Your task to perform on an android device: see sites visited before in the chrome app Image 0: 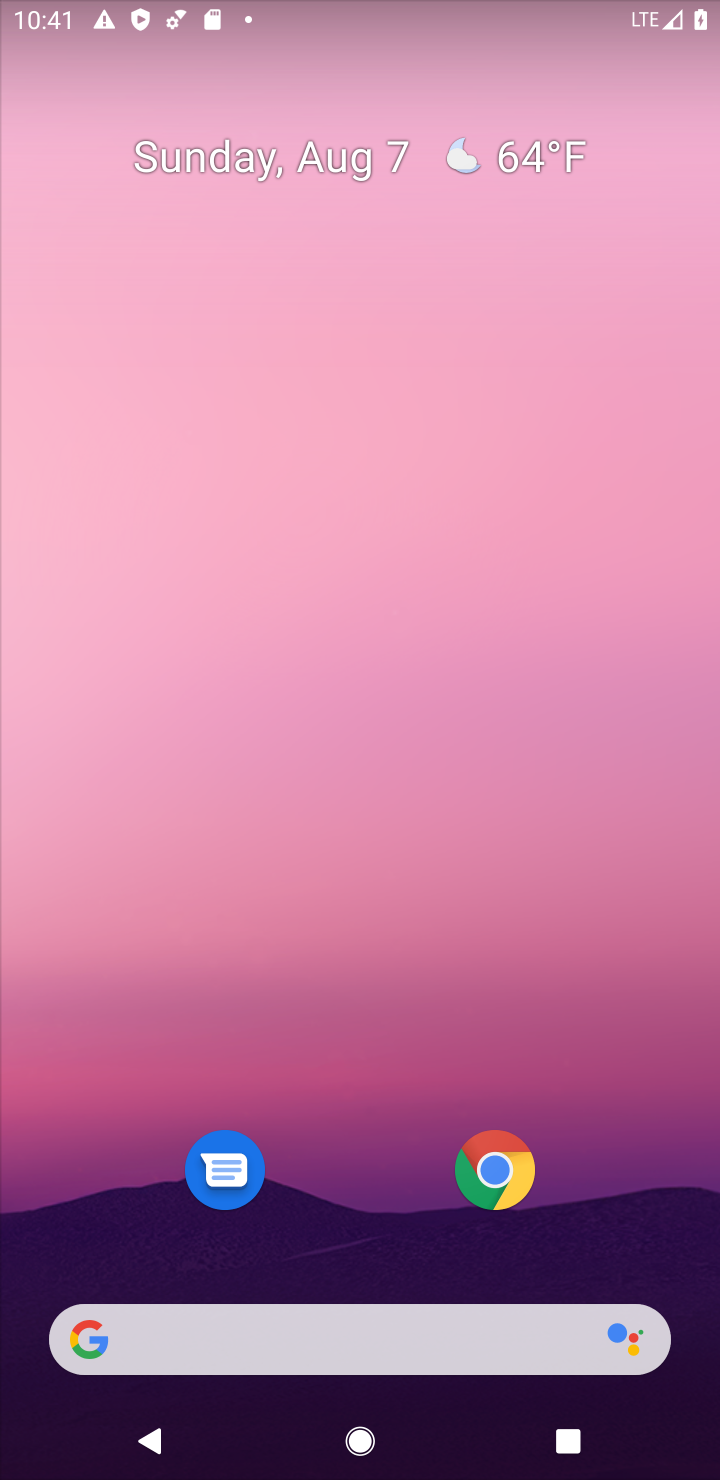
Step 0: drag from (490, 1289) to (435, 213)
Your task to perform on an android device: see sites visited before in the chrome app Image 1: 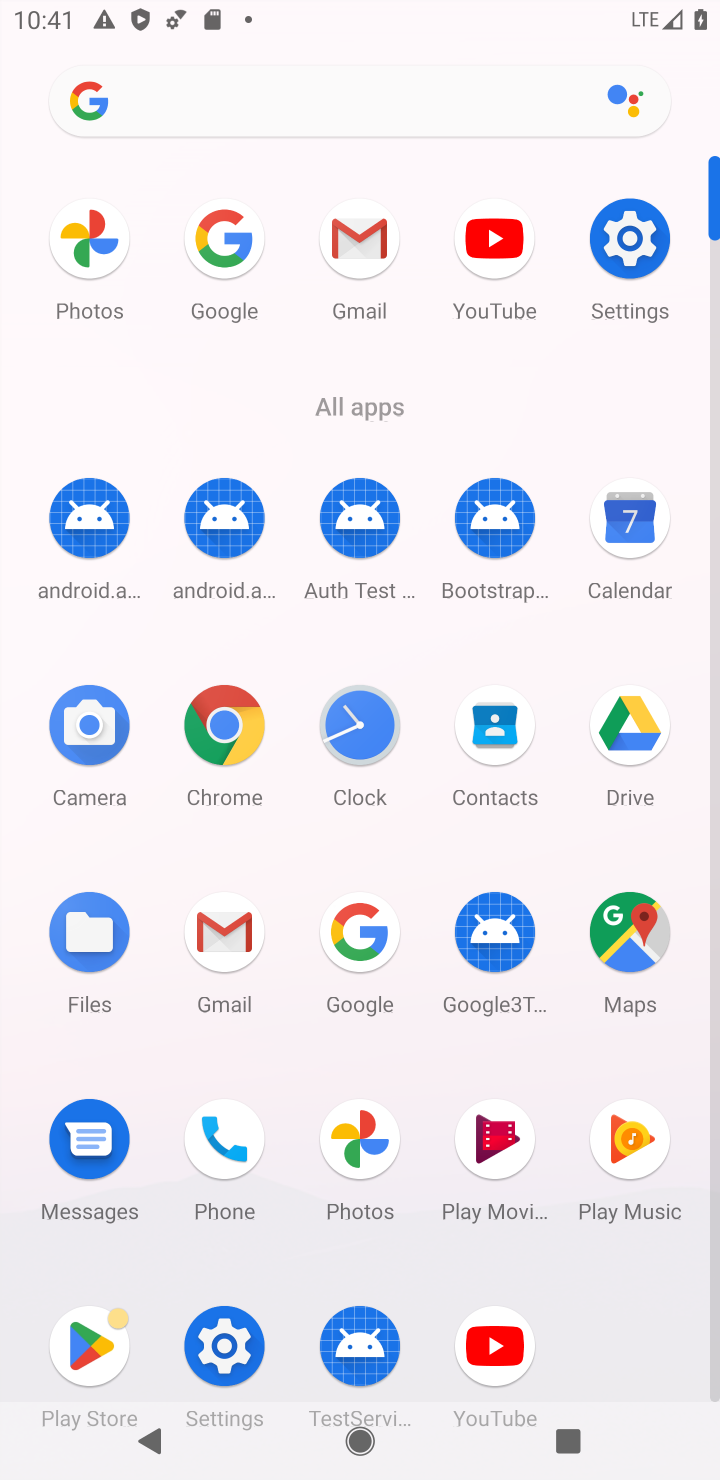
Step 1: click (218, 713)
Your task to perform on an android device: see sites visited before in the chrome app Image 2: 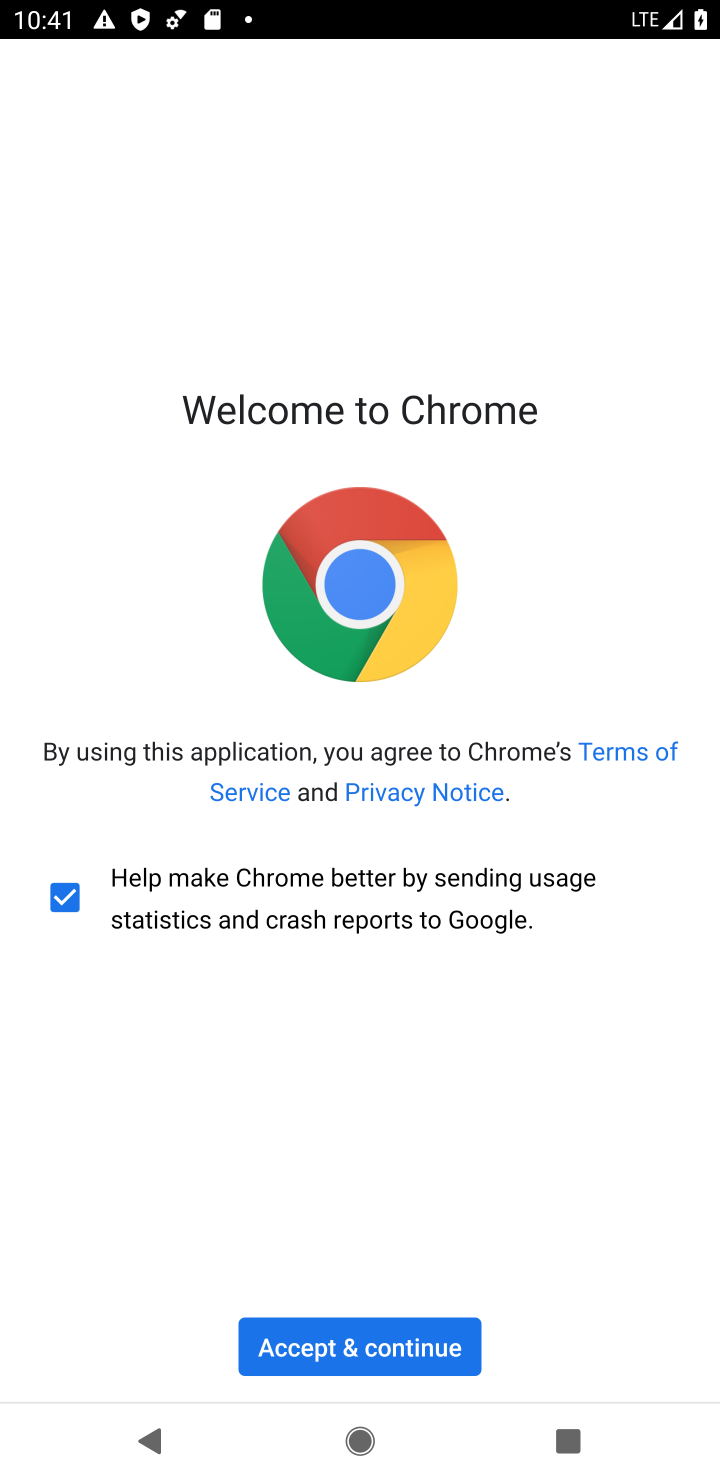
Step 2: click (393, 1312)
Your task to perform on an android device: see sites visited before in the chrome app Image 3: 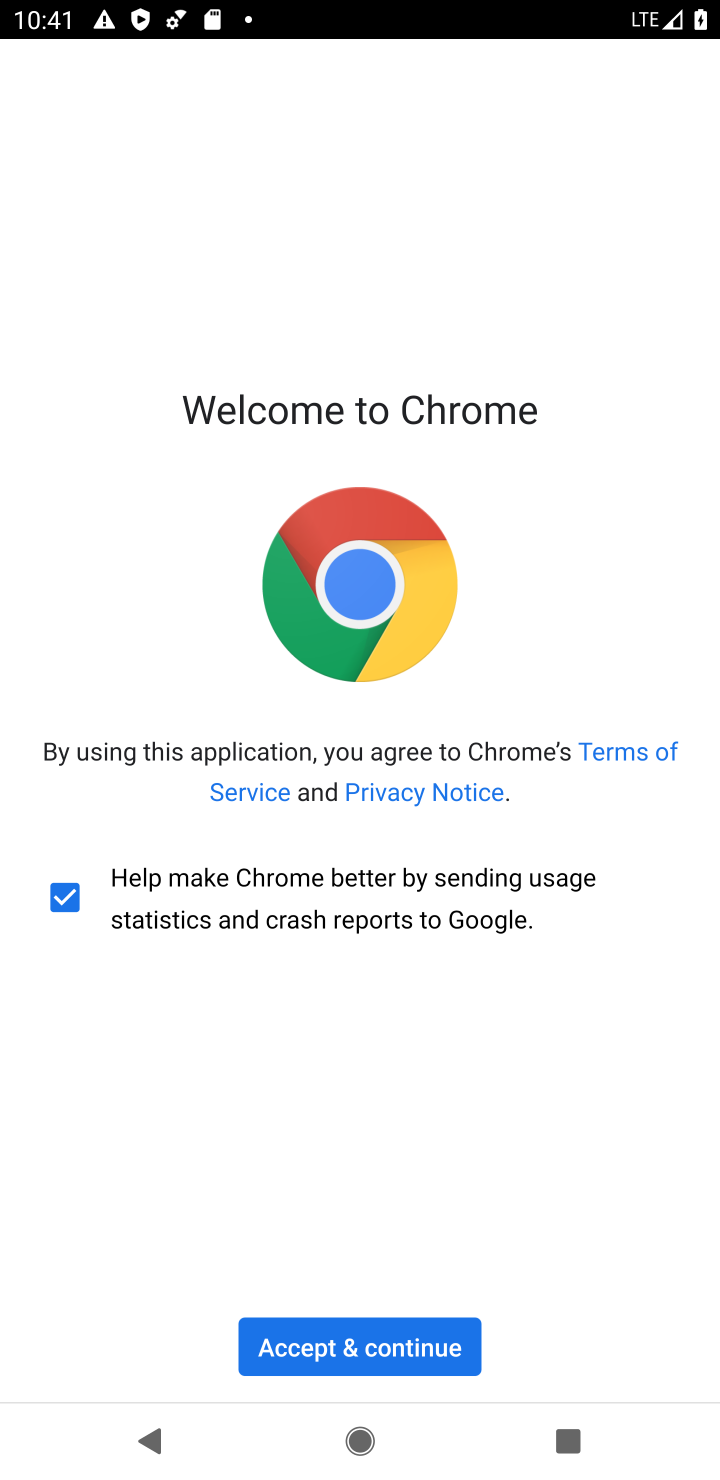
Step 3: click (361, 1346)
Your task to perform on an android device: see sites visited before in the chrome app Image 4: 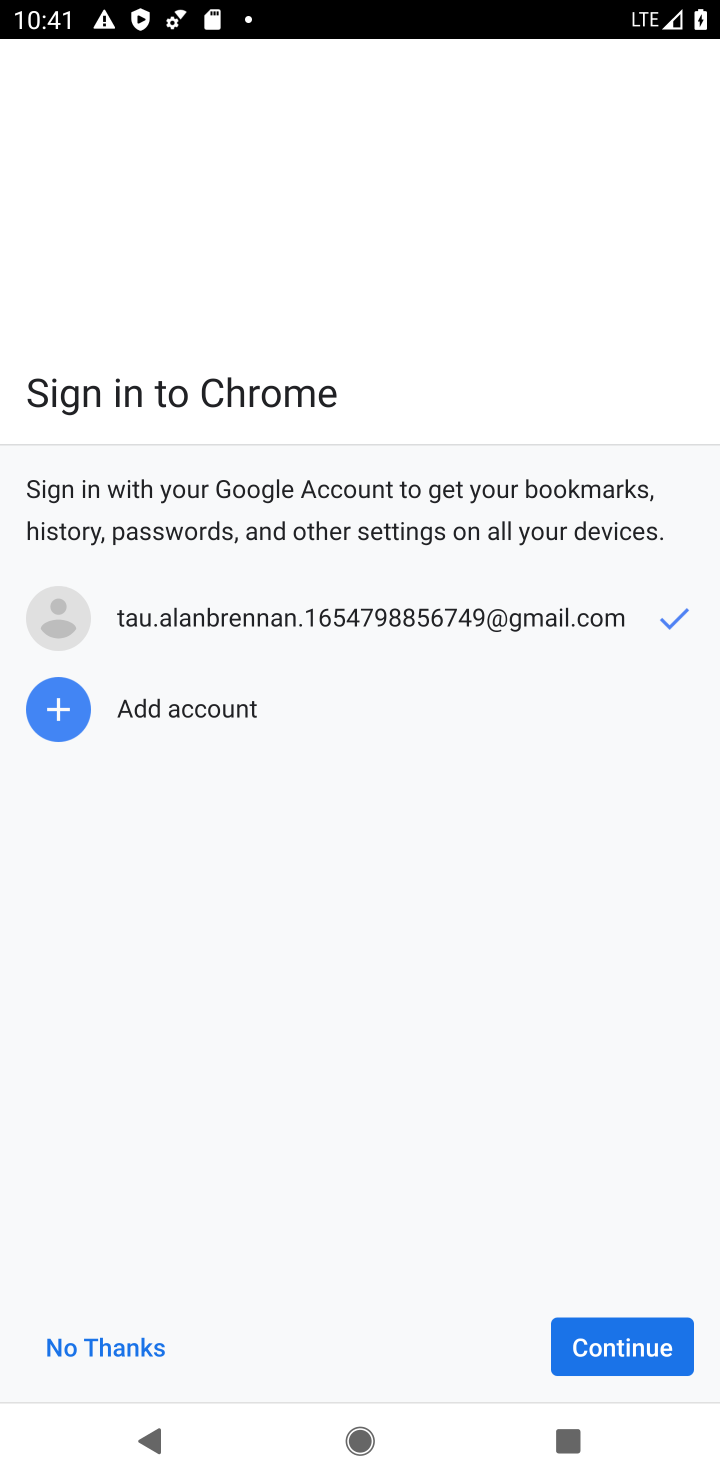
Step 4: click (99, 1333)
Your task to perform on an android device: see sites visited before in the chrome app Image 5: 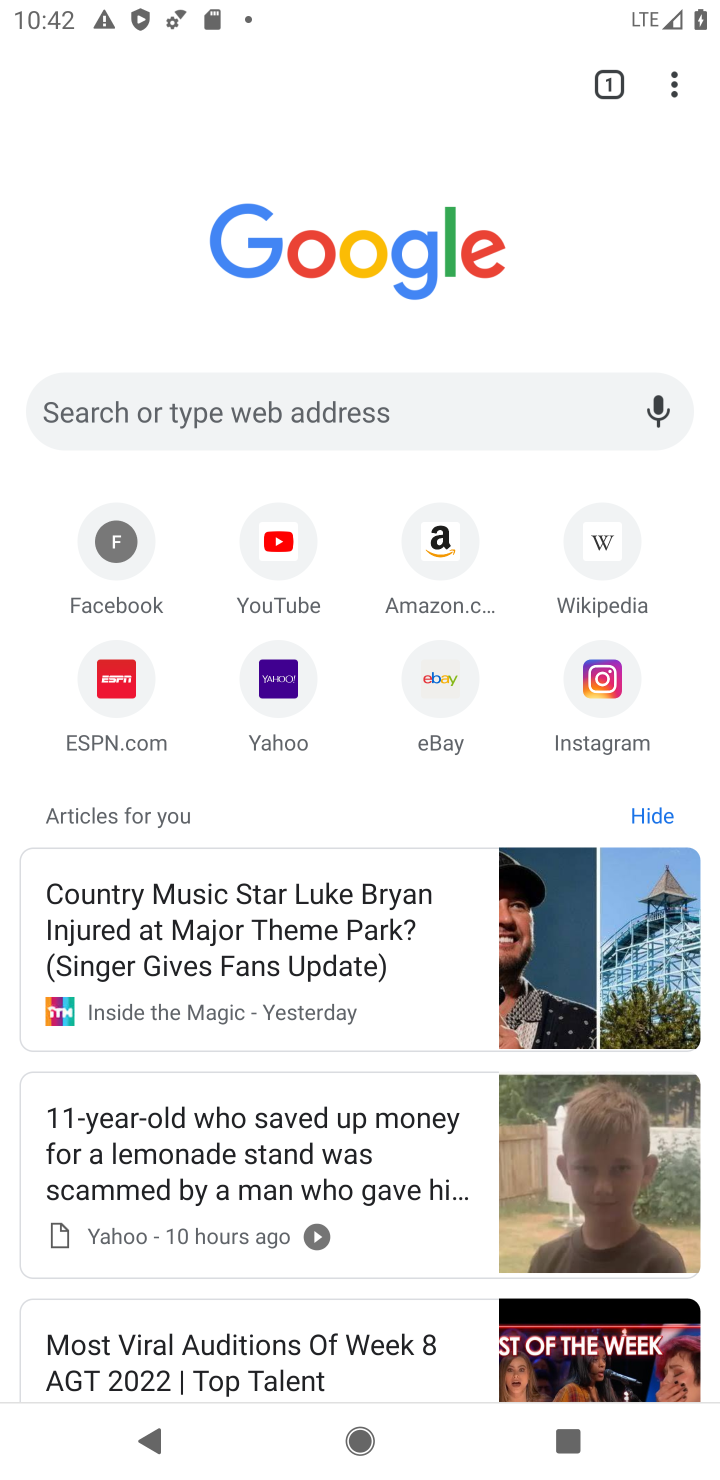
Step 5: click (679, 84)
Your task to perform on an android device: see sites visited before in the chrome app Image 6: 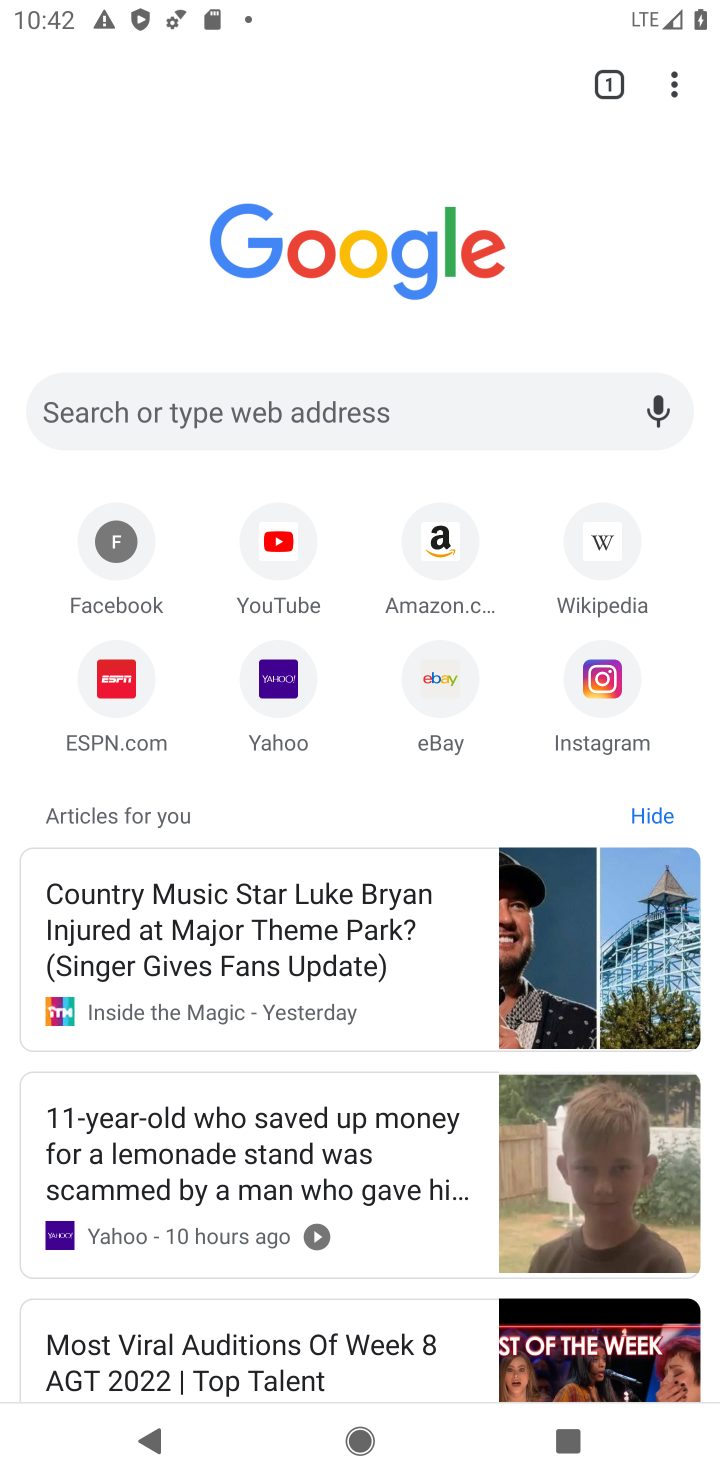
Step 6: click (679, 84)
Your task to perform on an android device: see sites visited before in the chrome app Image 7: 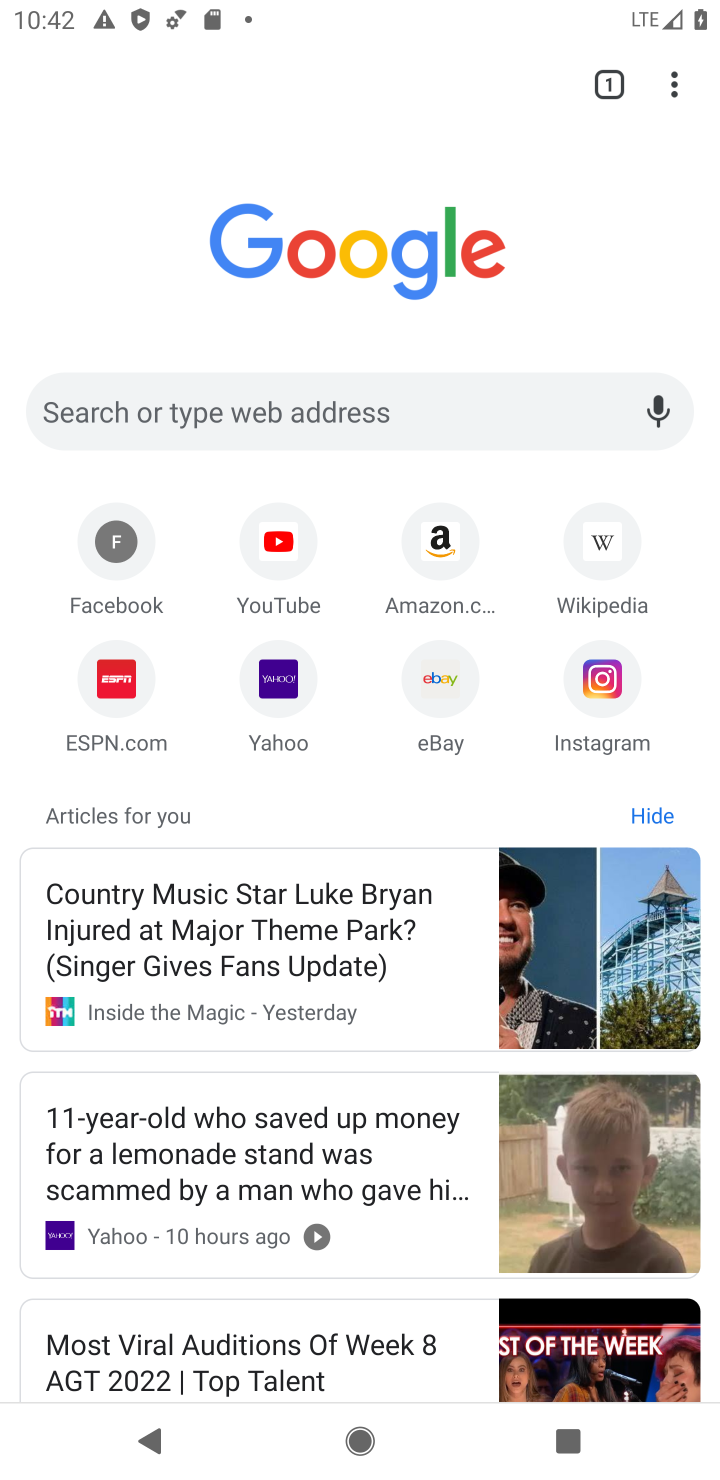
Step 7: click (669, 67)
Your task to perform on an android device: see sites visited before in the chrome app Image 8: 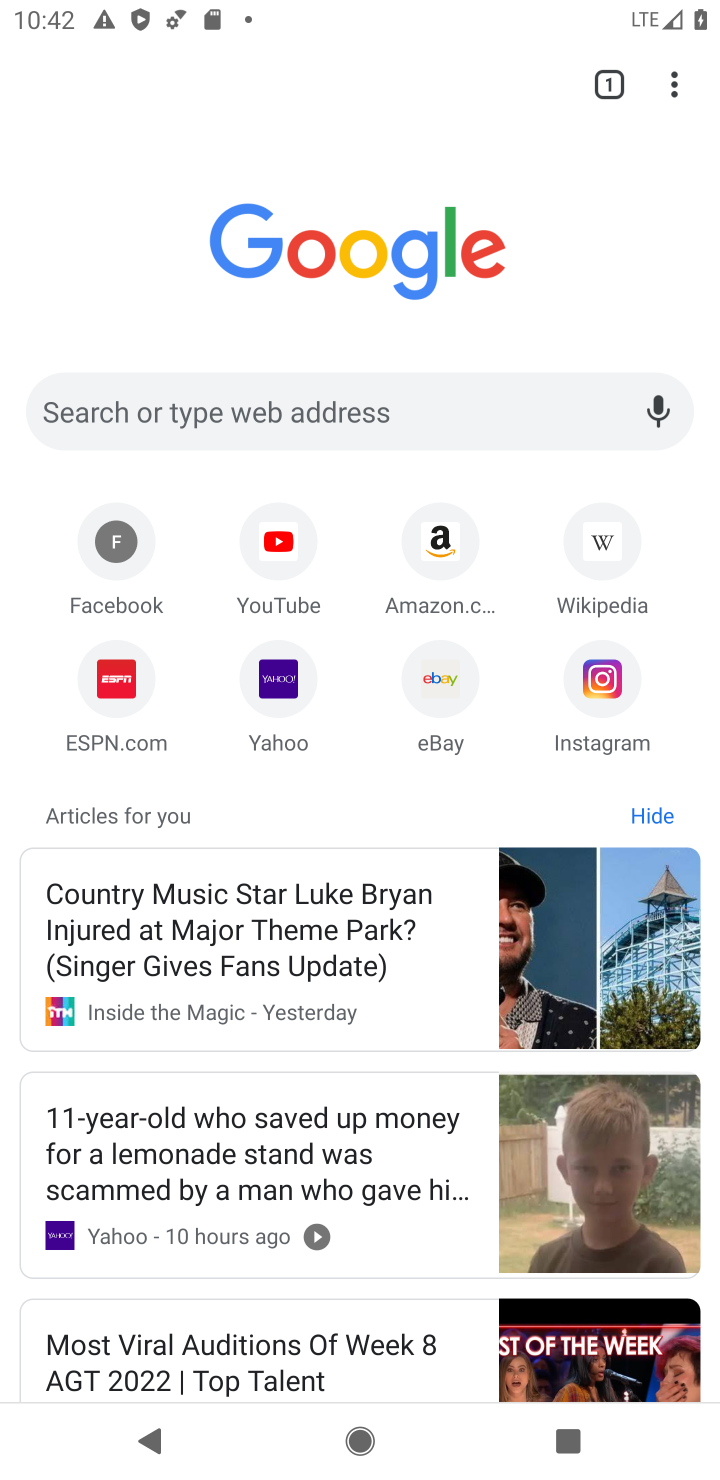
Step 8: drag from (670, 74) to (457, 403)
Your task to perform on an android device: see sites visited before in the chrome app Image 9: 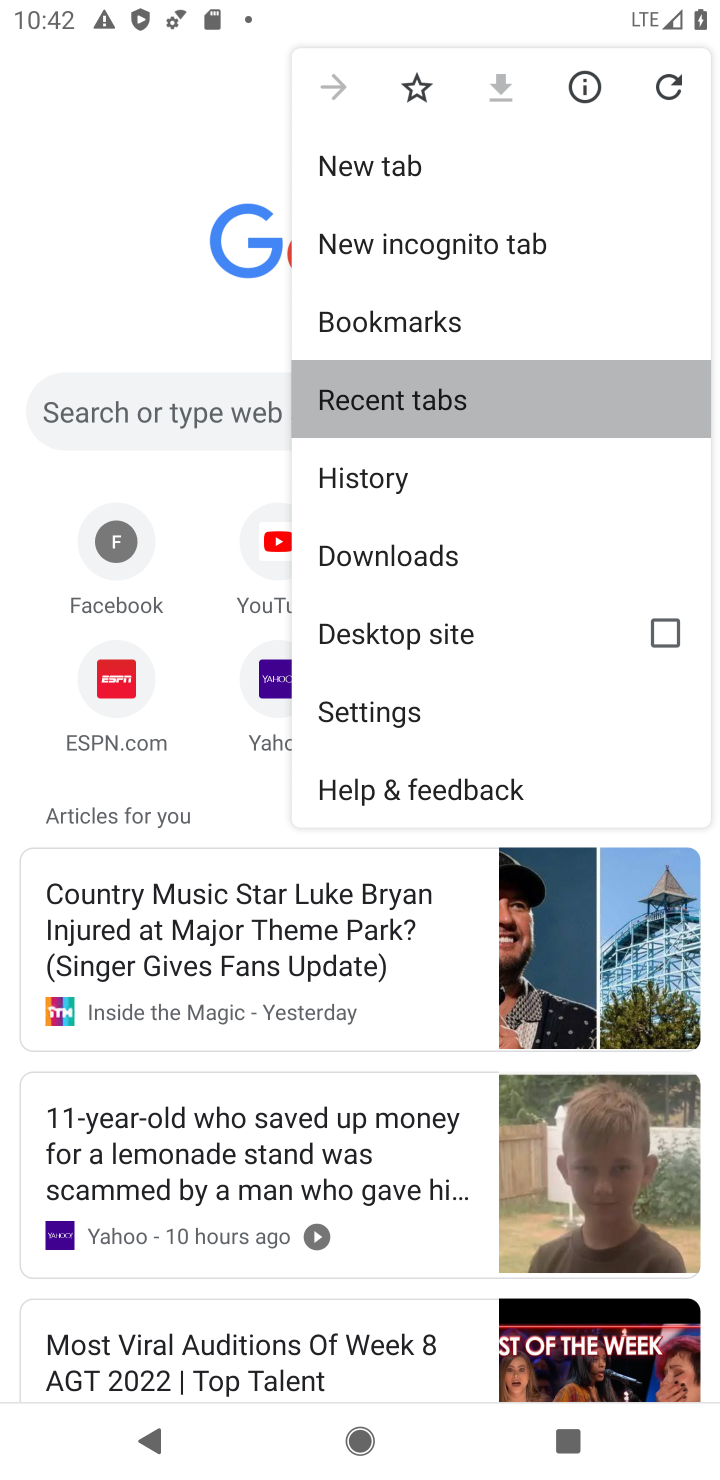
Step 9: click (457, 403)
Your task to perform on an android device: see sites visited before in the chrome app Image 10: 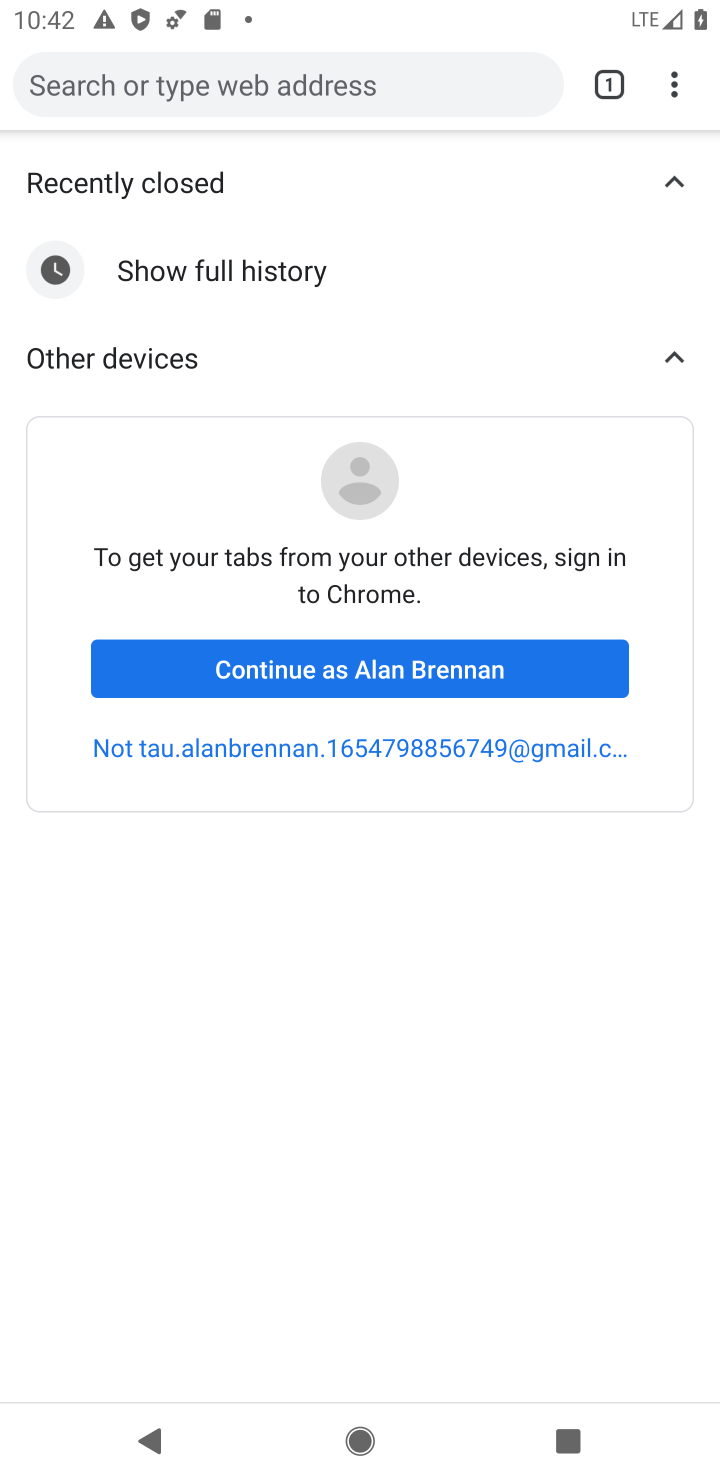
Step 10: task complete